Your task to perform on an android device: find which apps use the phone's location Image 0: 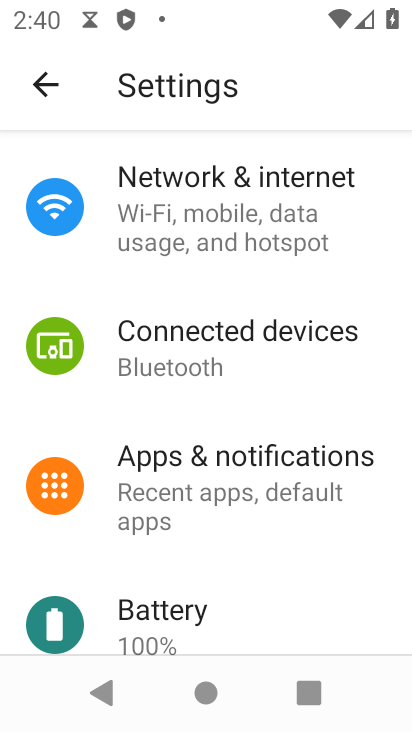
Step 0: drag from (346, 539) to (327, 190)
Your task to perform on an android device: find which apps use the phone's location Image 1: 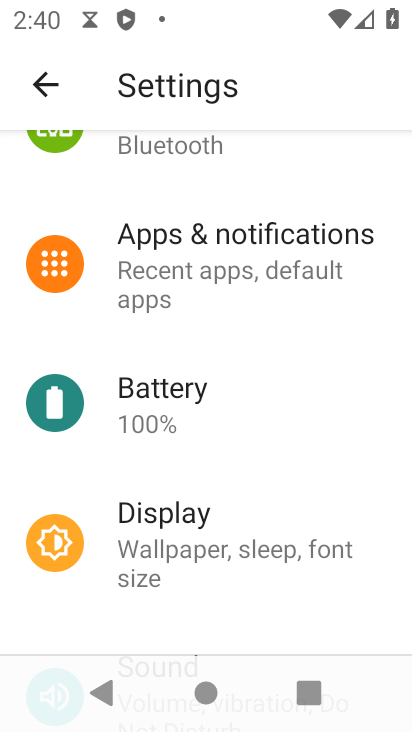
Step 1: drag from (290, 492) to (300, 220)
Your task to perform on an android device: find which apps use the phone's location Image 2: 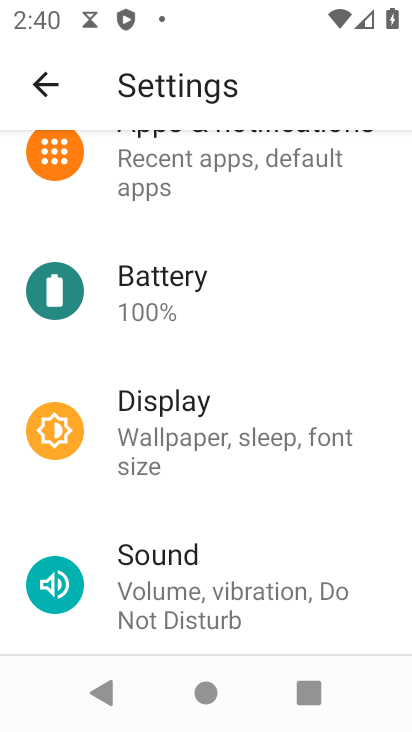
Step 2: drag from (294, 561) to (301, 202)
Your task to perform on an android device: find which apps use the phone's location Image 3: 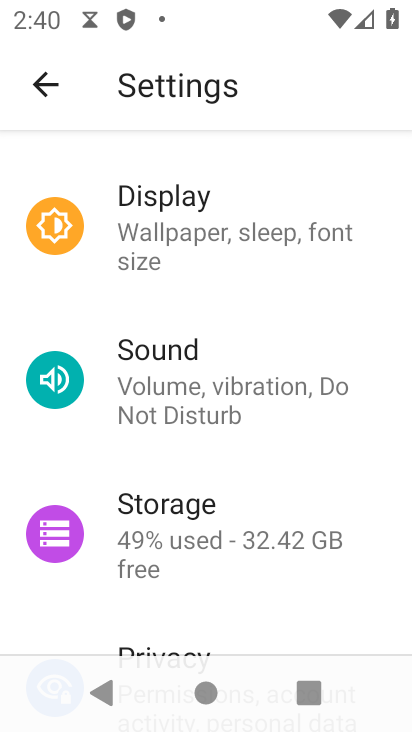
Step 3: drag from (284, 516) to (263, 178)
Your task to perform on an android device: find which apps use the phone's location Image 4: 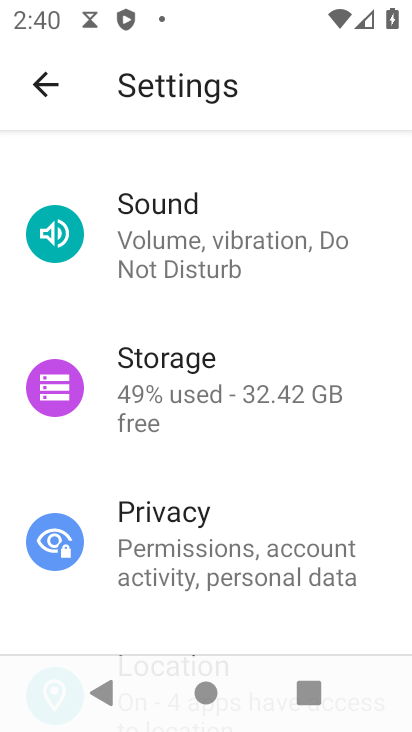
Step 4: drag from (274, 495) to (258, 181)
Your task to perform on an android device: find which apps use the phone's location Image 5: 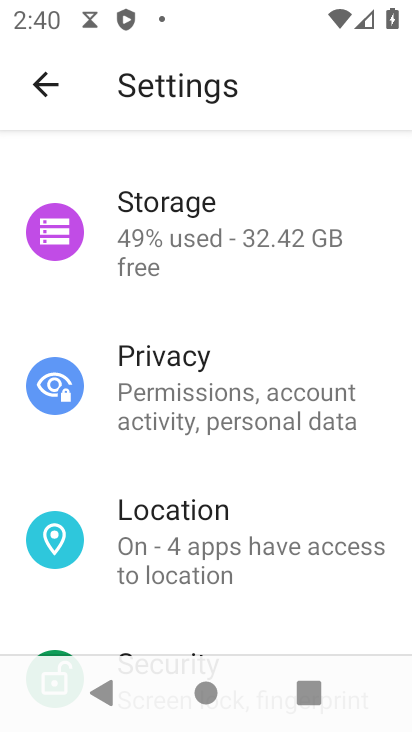
Step 5: click (202, 512)
Your task to perform on an android device: find which apps use the phone's location Image 6: 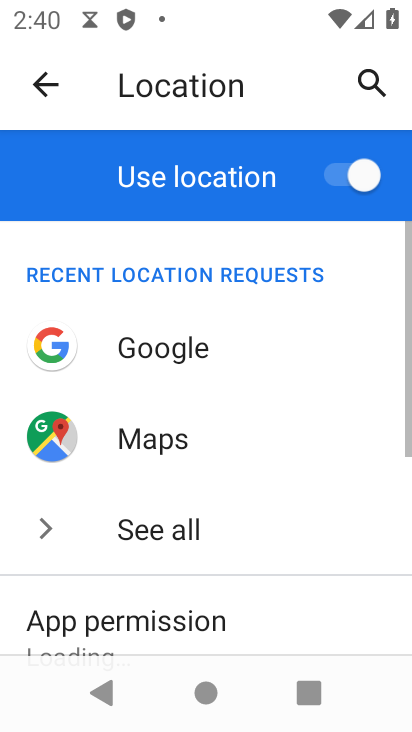
Step 6: drag from (305, 415) to (296, 98)
Your task to perform on an android device: find which apps use the phone's location Image 7: 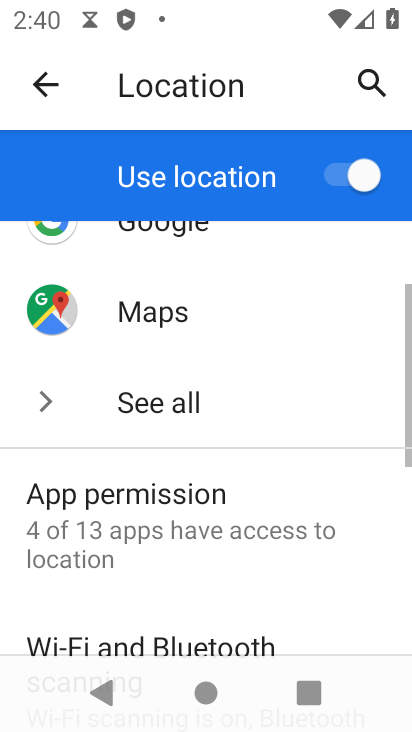
Step 7: drag from (295, 442) to (294, 104)
Your task to perform on an android device: find which apps use the phone's location Image 8: 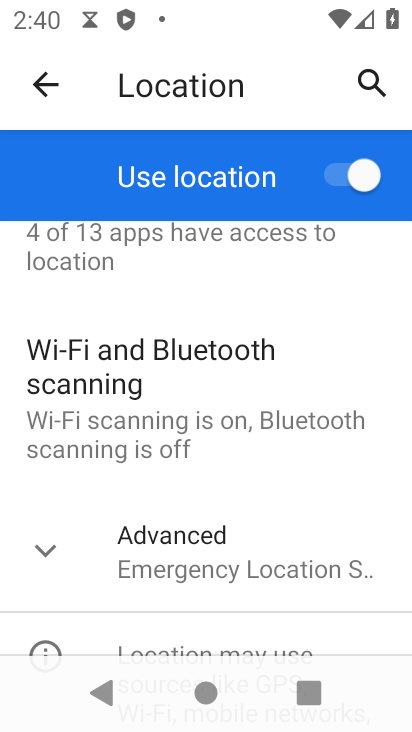
Step 8: click (70, 551)
Your task to perform on an android device: find which apps use the phone's location Image 9: 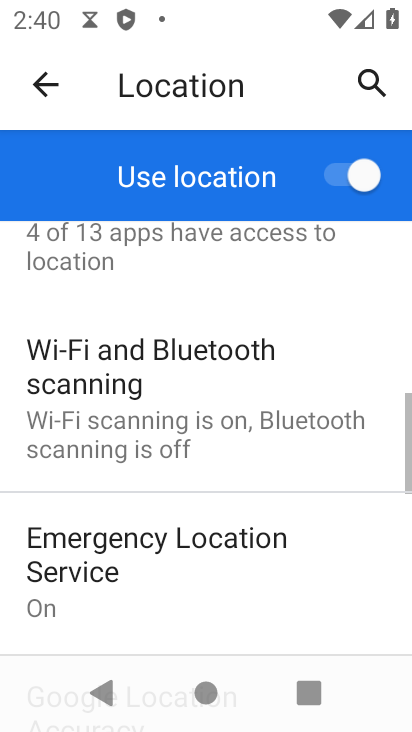
Step 9: drag from (250, 569) to (237, 183)
Your task to perform on an android device: find which apps use the phone's location Image 10: 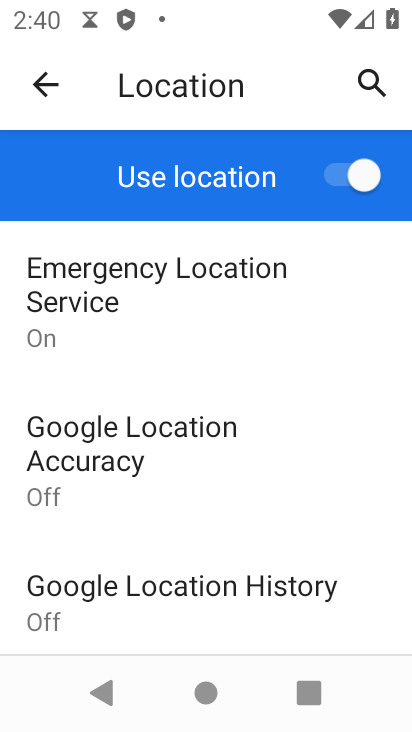
Step 10: drag from (234, 544) to (251, 252)
Your task to perform on an android device: find which apps use the phone's location Image 11: 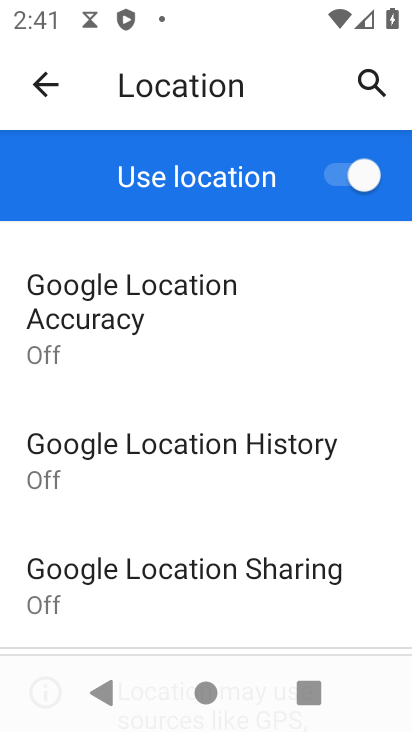
Step 11: click (214, 439)
Your task to perform on an android device: find which apps use the phone's location Image 12: 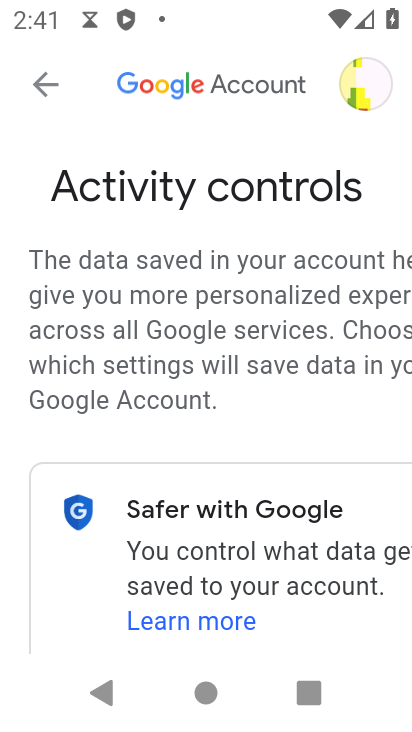
Step 12: click (53, 83)
Your task to perform on an android device: find which apps use the phone's location Image 13: 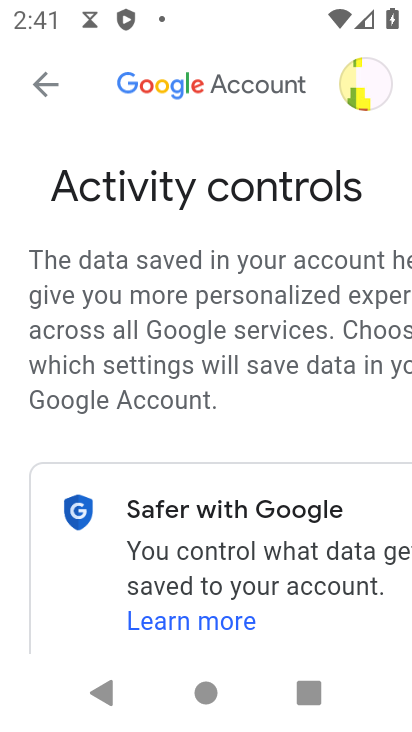
Step 13: click (53, 83)
Your task to perform on an android device: find which apps use the phone's location Image 14: 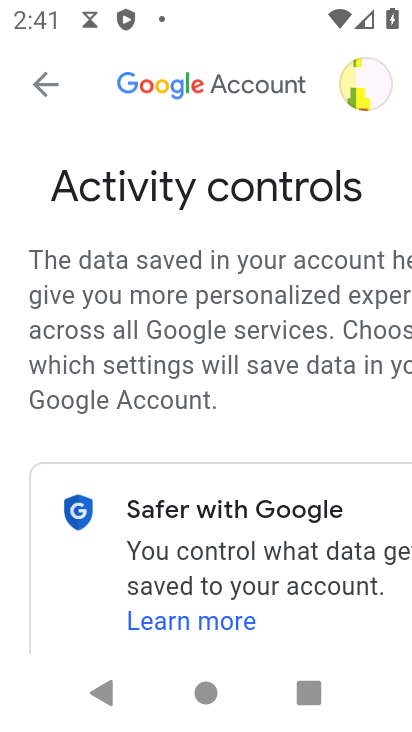
Step 14: click (27, 69)
Your task to perform on an android device: find which apps use the phone's location Image 15: 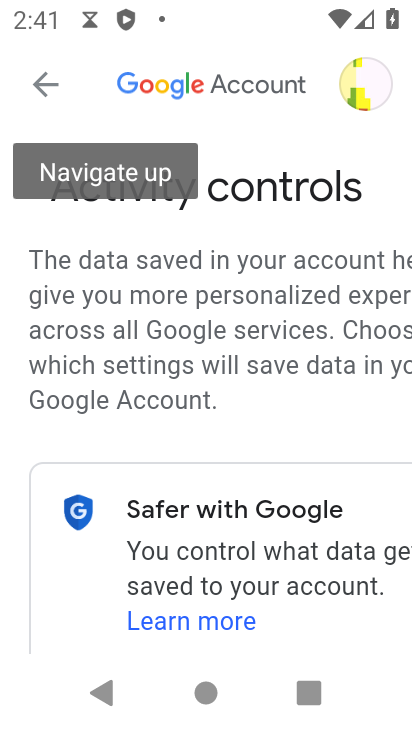
Step 15: press back button
Your task to perform on an android device: find which apps use the phone's location Image 16: 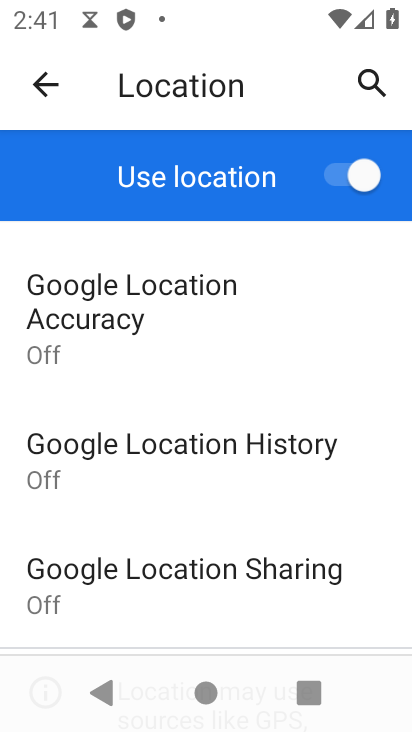
Step 16: press back button
Your task to perform on an android device: find which apps use the phone's location Image 17: 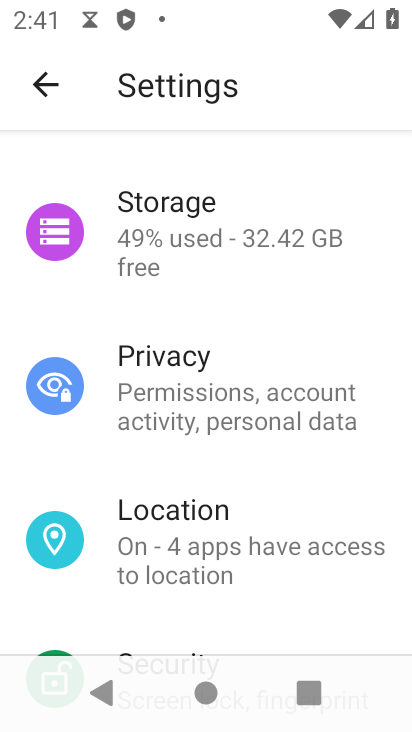
Step 17: click (198, 543)
Your task to perform on an android device: find which apps use the phone's location Image 18: 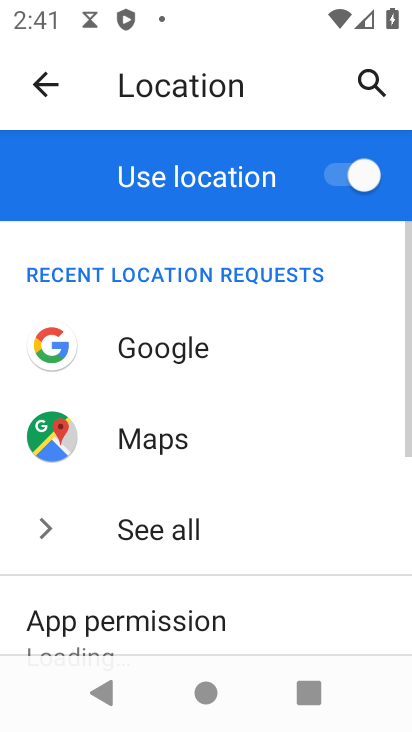
Step 18: drag from (214, 617) to (245, 284)
Your task to perform on an android device: find which apps use the phone's location Image 19: 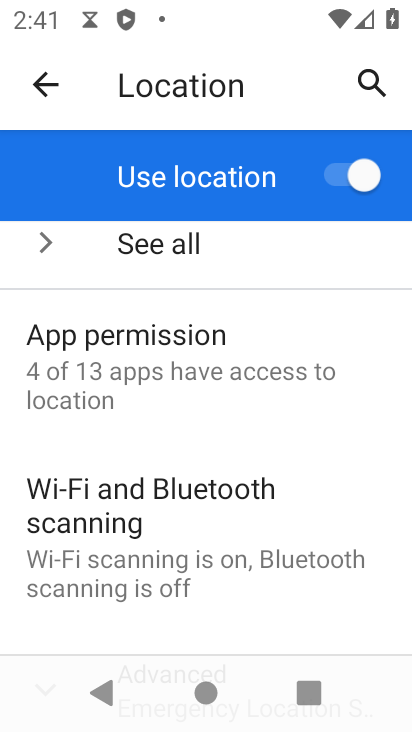
Step 19: click (208, 353)
Your task to perform on an android device: find which apps use the phone's location Image 20: 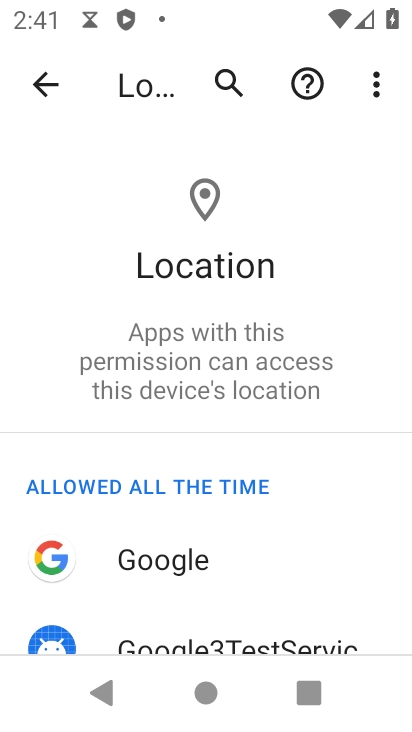
Step 20: task complete